Your task to perform on an android device: Open Amazon Image 0: 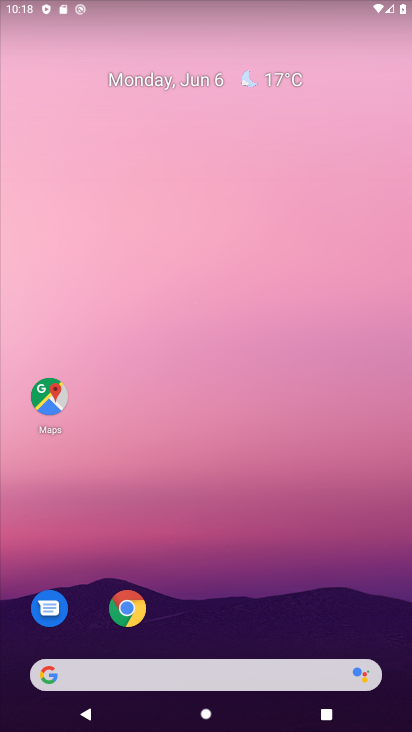
Step 0: click (257, 563)
Your task to perform on an android device: Open Amazon Image 1: 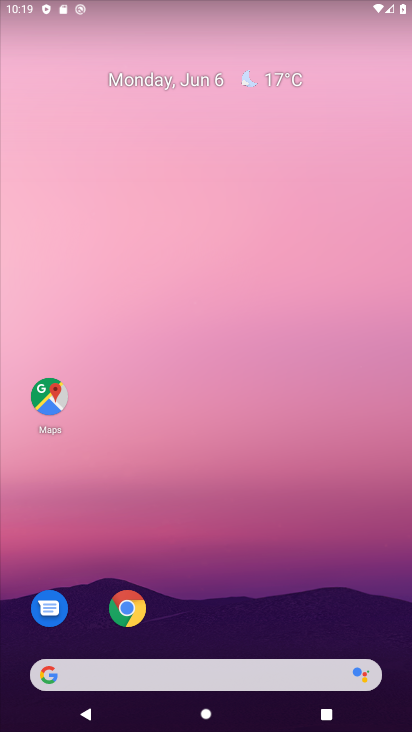
Step 1: drag from (173, 543) to (175, 331)
Your task to perform on an android device: Open Amazon Image 2: 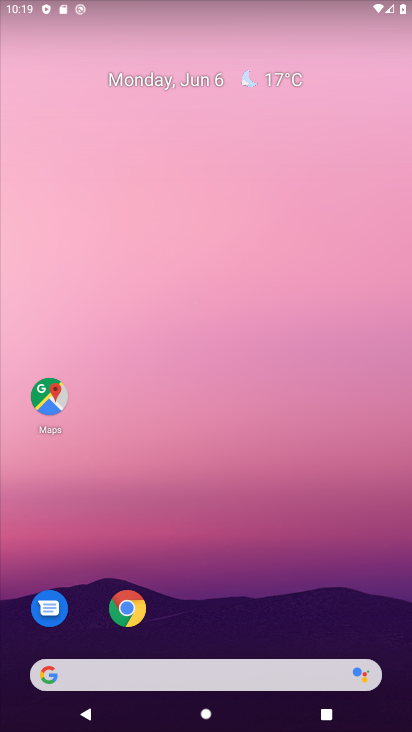
Step 2: click (131, 624)
Your task to perform on an android device: Open Amazon Image 3: 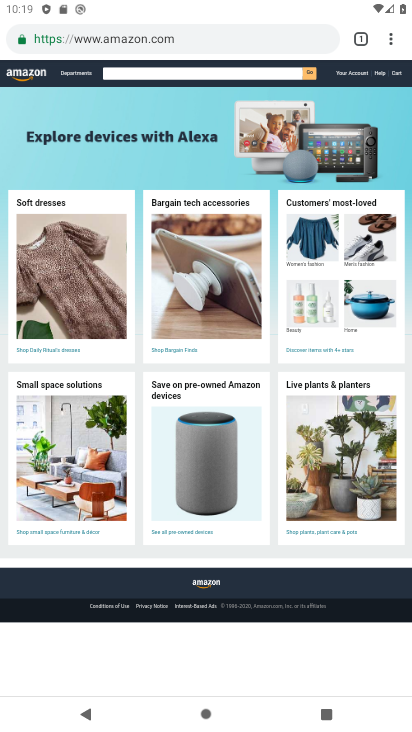
Step 3: task complete